Your task to perform on an android device: Go to accessibility settings Image 0: 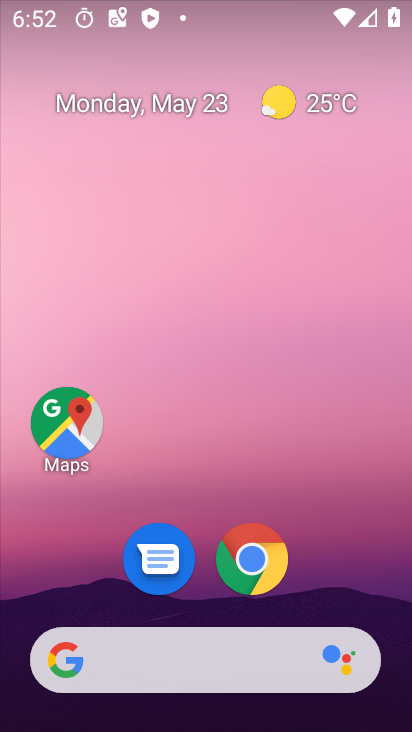
Step 0: drag from (384, 655) to (358, 32)
Your task to perform on an android device: Go to accessibility settings Image 1: 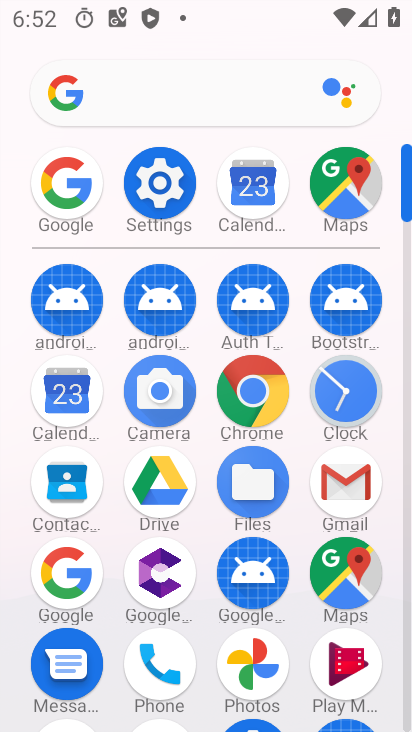
Step 1: click (170, 184)
Your task to perform on an android device: Go to accessibility settings Image 2: 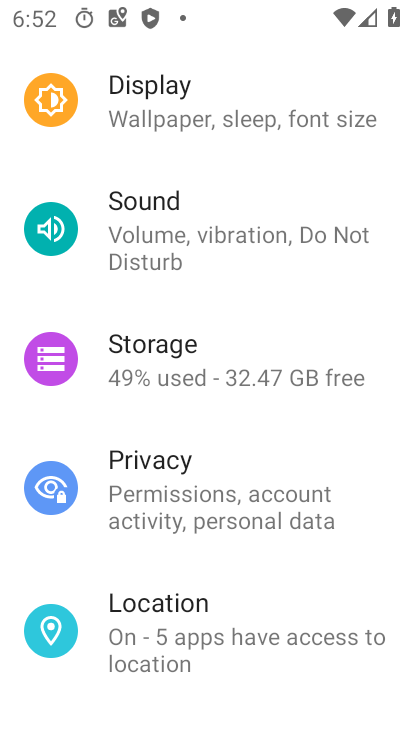
Step 2: drag from (188, 638) to (264, 43)
Your task to perform on an android device: Go to accessibility settings Image 3: 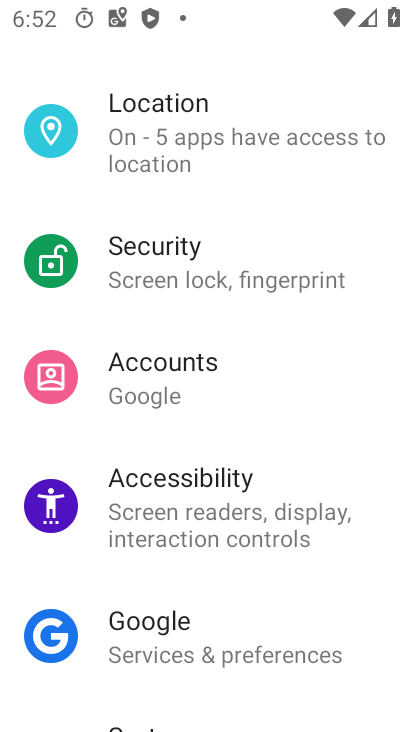
Step 3: click (195, 519)
Your task to perform on an android device: Go to accessibility settings Image 4: 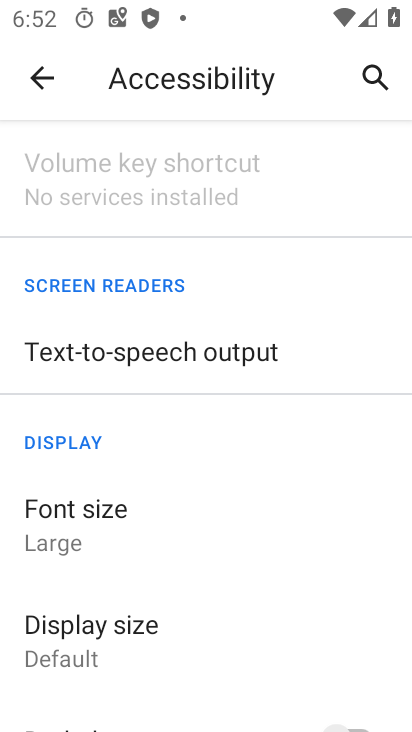
Step 4: task complete